Your task to perform on an android device: turn off picture-in-picture Image 0: 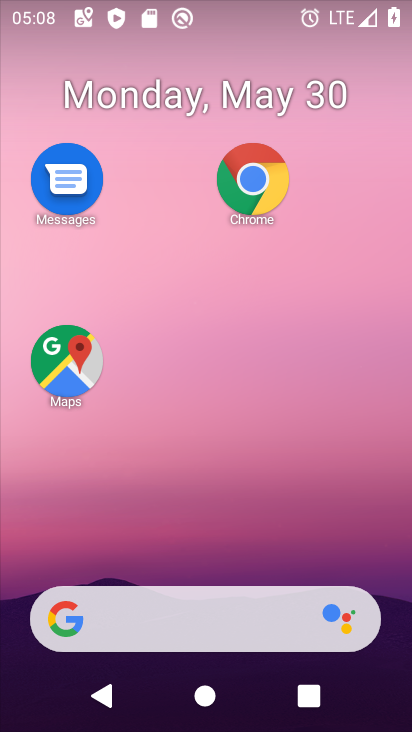
Step 0: drag from (214, 532) to (128, 4)
Your task to perform on an android device: turn off picture-in-picture Image 1: 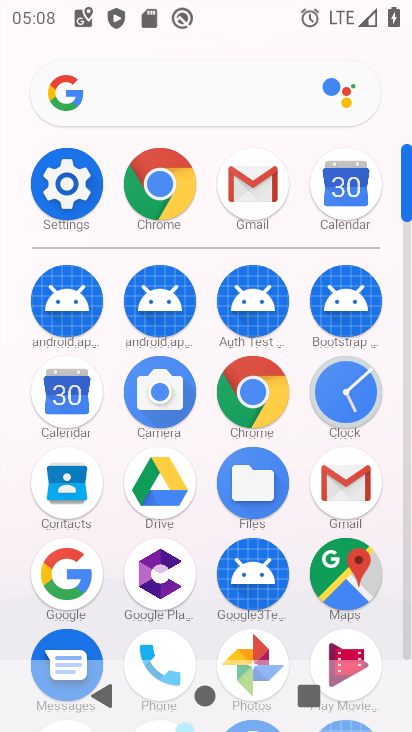
Step 1: click (56, 193)
Your task to perform on an android device: turn off picture-in-picture Image 2: 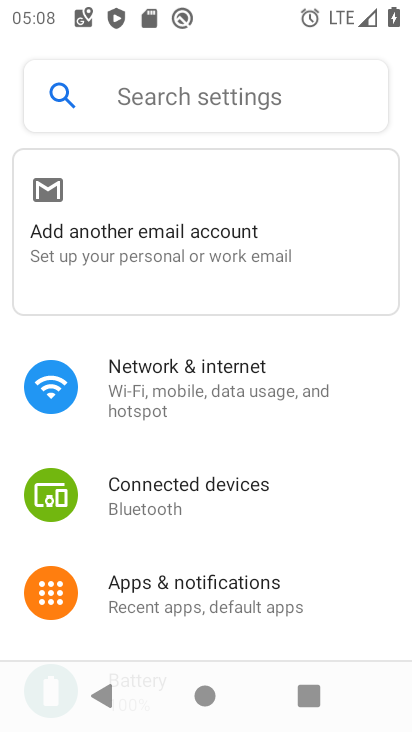
Step 2: drag from (211, 570) to (200, 185)
Your task to perform on an android device: turn off picture-in-picture Image 3: 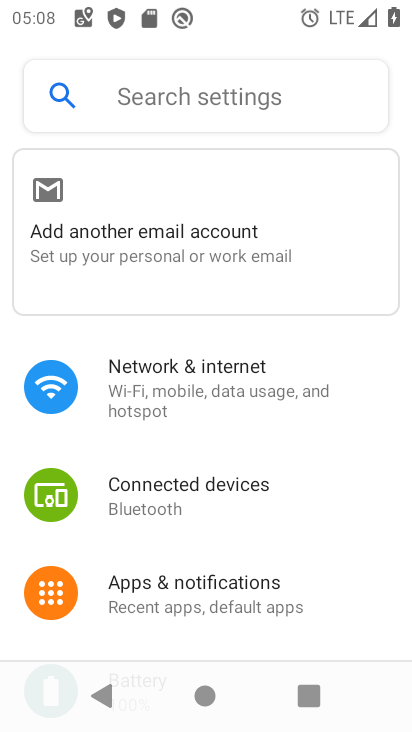
Step 3: drag from (181, 599) to (163, 335)
Your task to perform on an android device: turn off picture-in-picture Image 4: 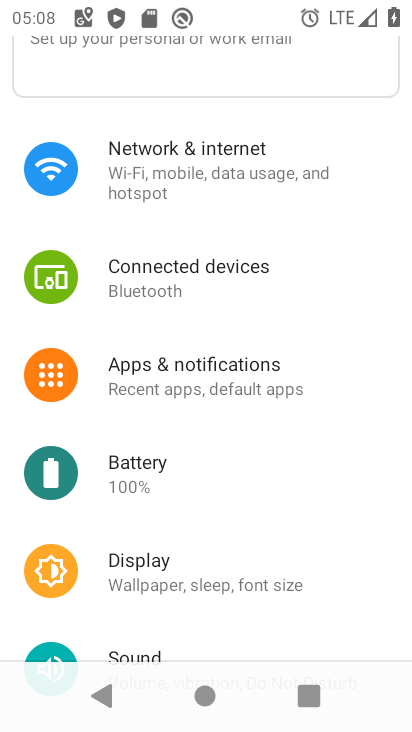
Step 4: click (284, 384)
Your task to perform on an android device: turn off picture-in-picture Image 5: 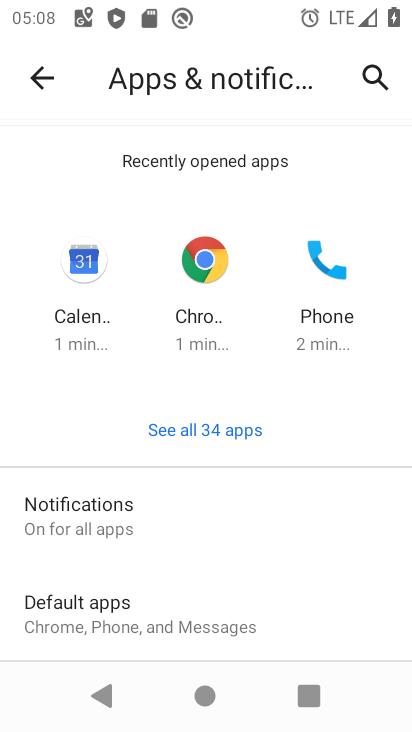
Step 5: drag from (133, 603) to (158, 127)
Your task to perform on an android device: turn off picture-in-picture Image 6: 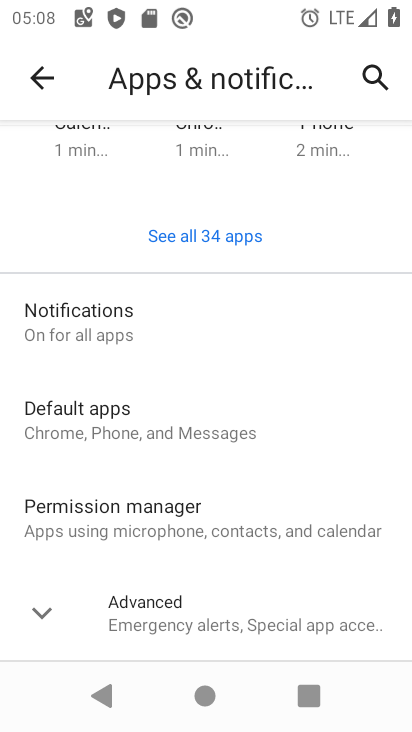
Step 6: click (168, 609)
Your task to perform on an android device: turn off picture-in-picture Image 7: 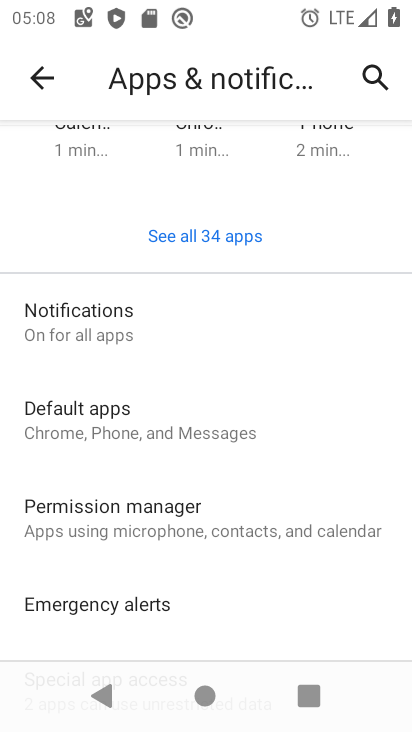
Step 7: drag from (162, 608) to (140, 198)
Your task to perform on an android device: turn off picture-in-picture Image 8: 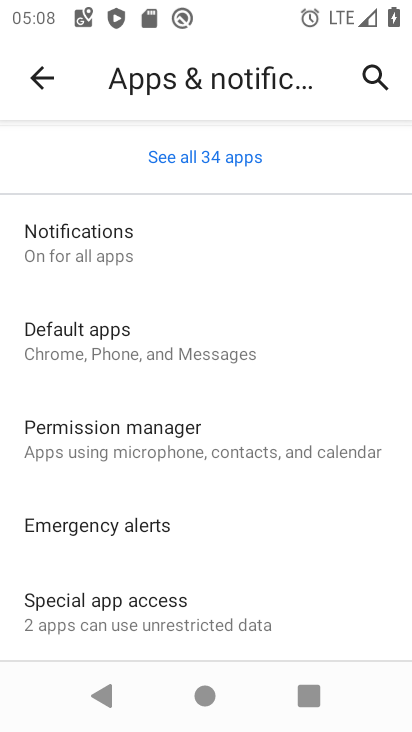
Step 8: click (115, 599)
Your task to perform on an android device: turn off picture-in-picture Image 9: 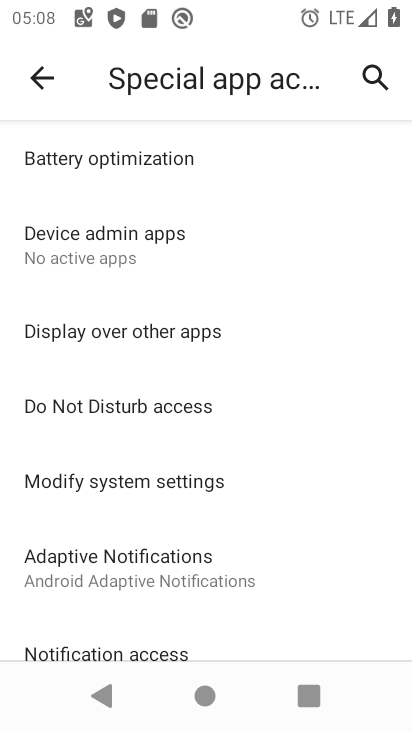
Step 9: drag from (154, 585) to (157, 312)
Your task to perform on an android device: turn off picture-in-picture Image 10: 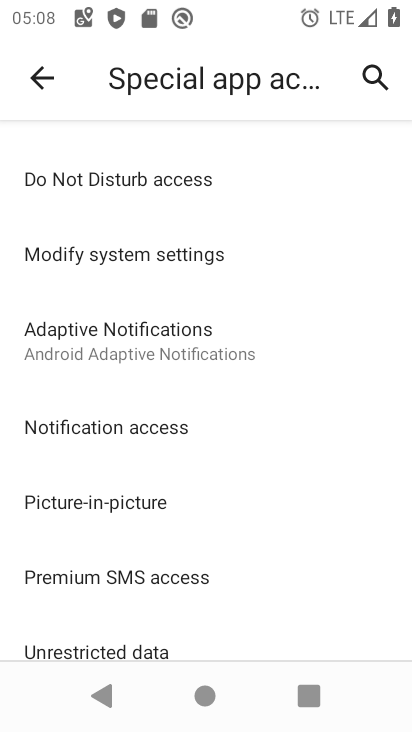
Step 10: click (135, 516)
Your task to perform on an android device: turn off picture-in-picture Image 11: 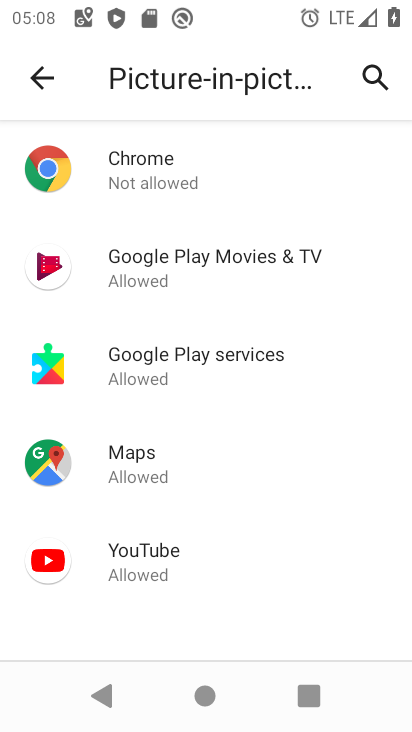
Step 11: click (103, 172)
Your task to perform on an android device: turn off picture-in-picture Image 12: 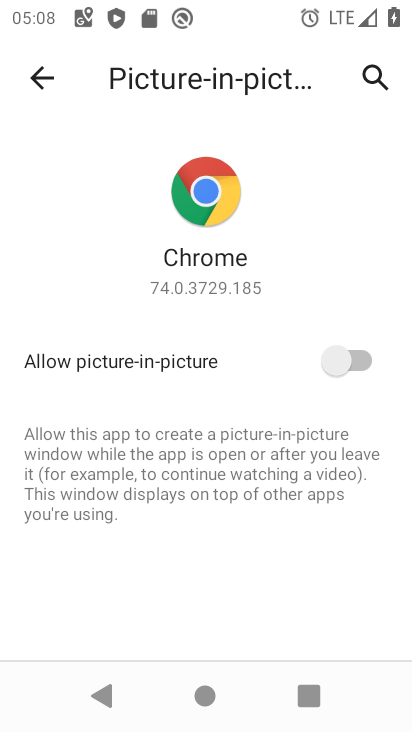
Step 12: click (363, 373)
Your task to perform on an android device: turn off picture-in-picture Image 13: 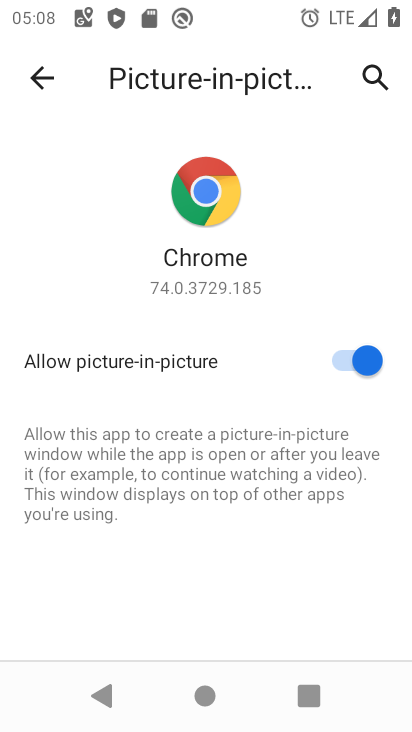
Step 13: click (340, 365)
Your task to perform on an android device: turn off picture-in-picture Image 14: 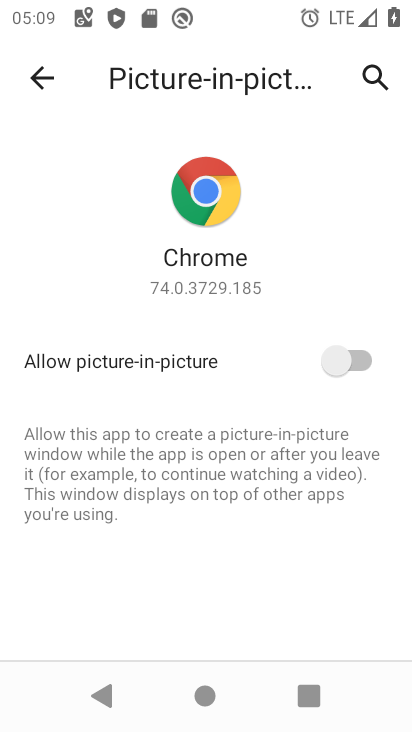
Step 14: task complete